Your task to perform on an android device: Open settings Image 0: 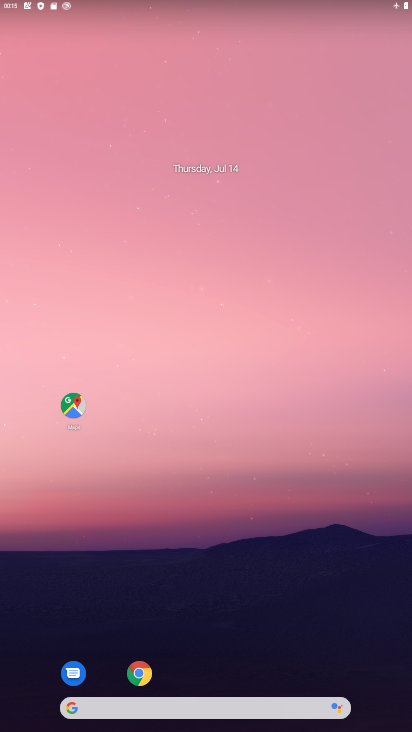
Step 0: drag from (201, 666) to (203, 280)
Your task to perform on an android device: Open settings Image 1: 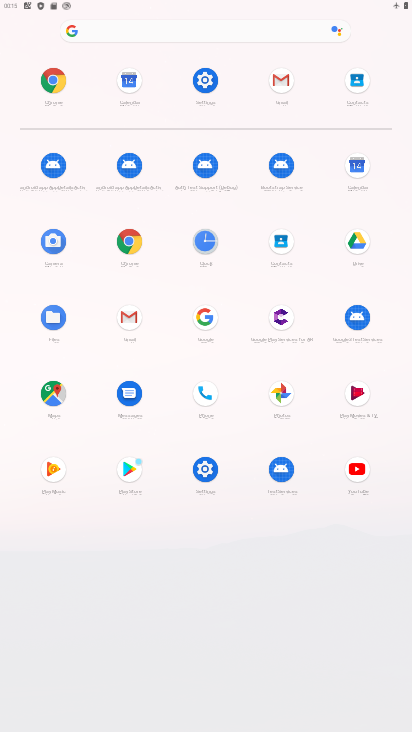
Step 1: click (206, 96)
Your task to perform on an android device: Open settings Image 2: 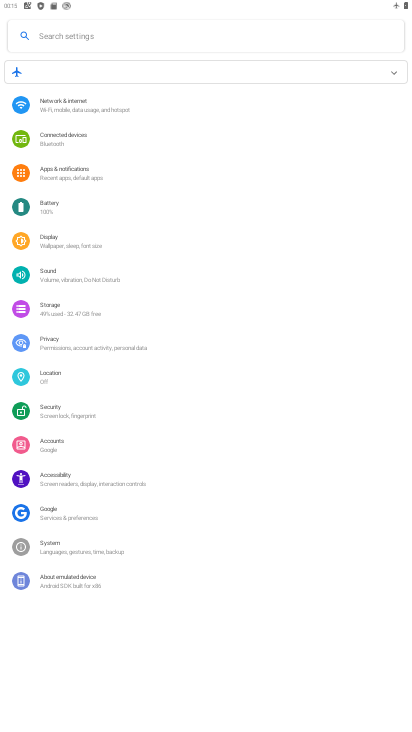
Step 2: task complete